Your task to perform on an android device: When is my next meeting? Image 0: 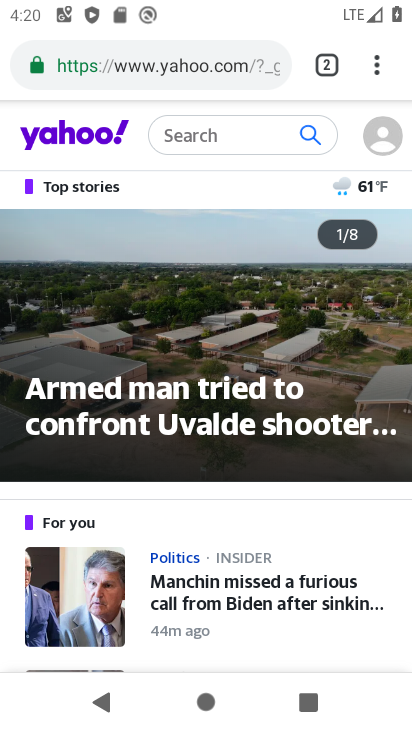
Step 0: press home button
Your task to perform on an android device: When is my next meeting? Image 1: 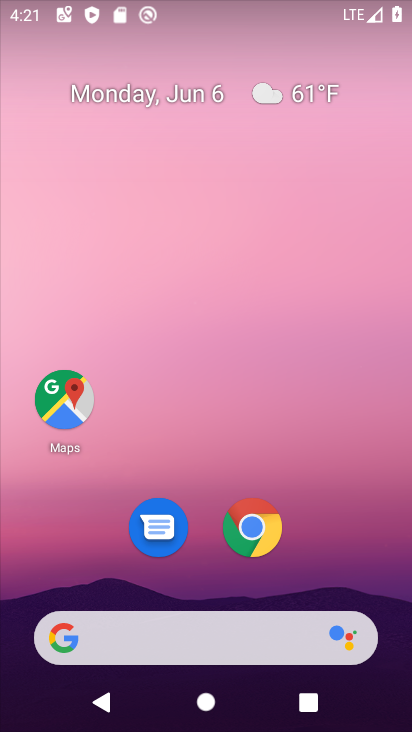
Step 1: drag from (389, 544) to (399, 154)
Your task to perform on an android device: When is my next meeting? Image 2: 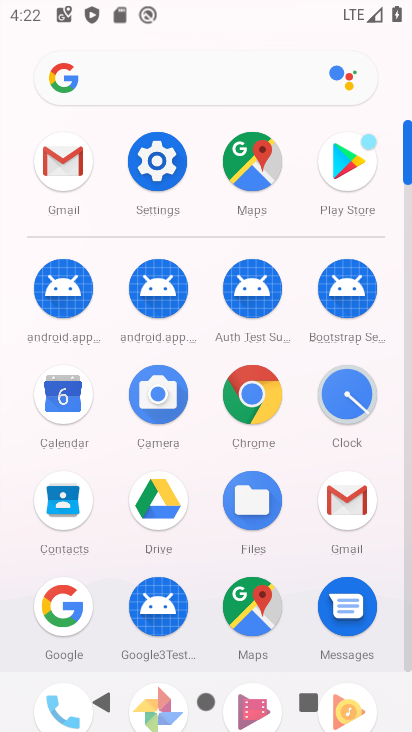
Step 2: click (54, 405)
Your task to perform on an android device: When is my next meeting? Image 3: 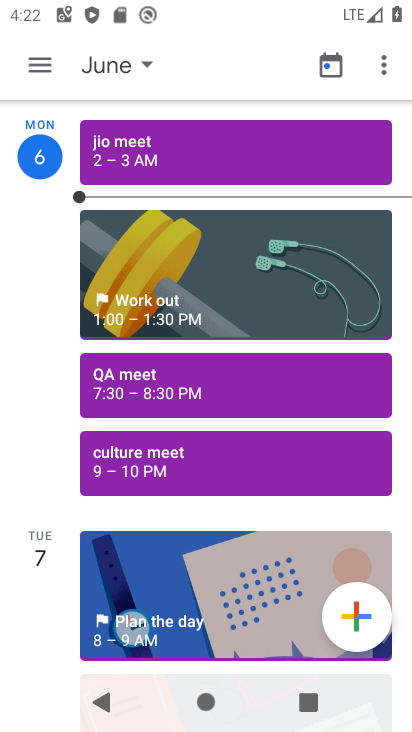
Step 3: task complete